Your task to perform on an android device: turn off priority inbox in the gmail app Image 0: 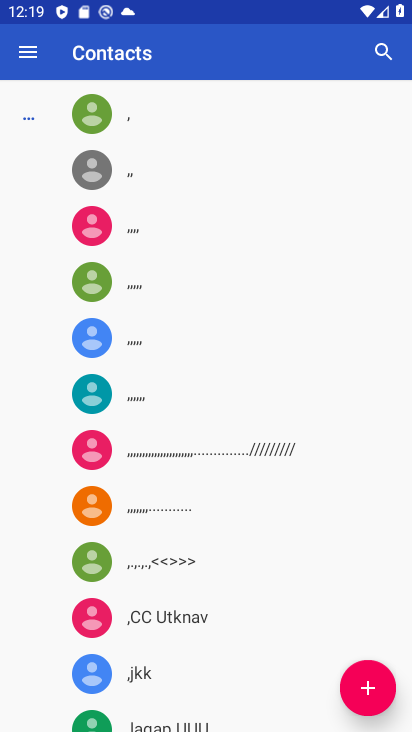
Step 0: press back button
Your task to perform on an android device: turn off priority inbox in the gmail app Image 1: 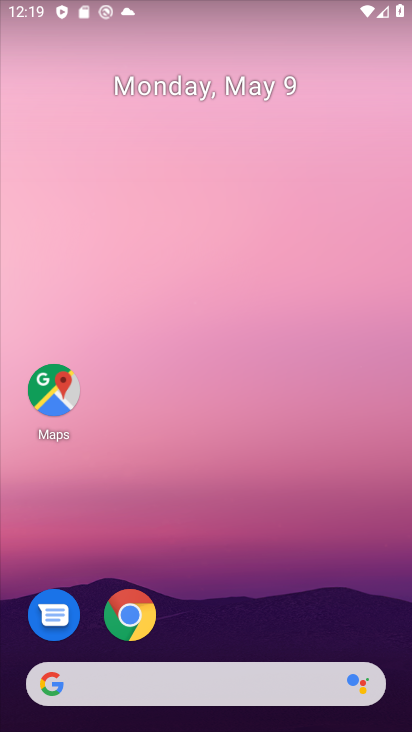
Step 1: drag from (276, 612) to (199, 162)
Your task to perform on an android device: turn off priority inbox in the gmail app Image 2: 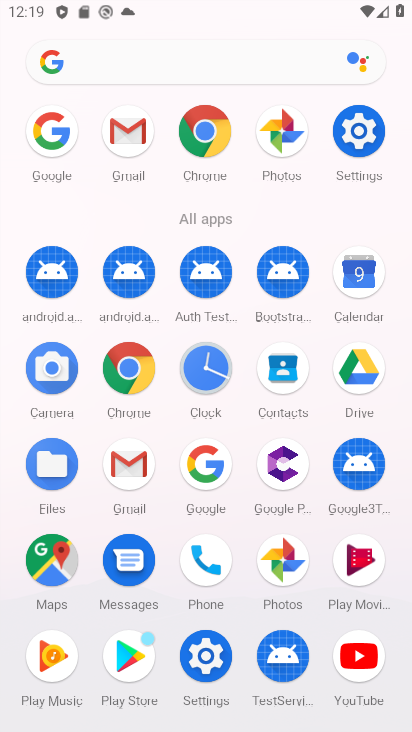
Step 2: click (128, 133)
Your task to perform on an android device: turn off priority inbox in the gmail app Image 3: 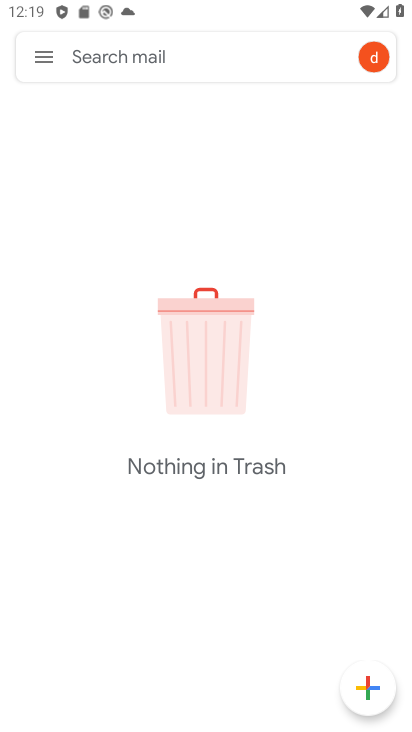
Step 3: click (47, 56)
Your task to perform on an android device: turn off priority inbox in the gmail app Image 4: 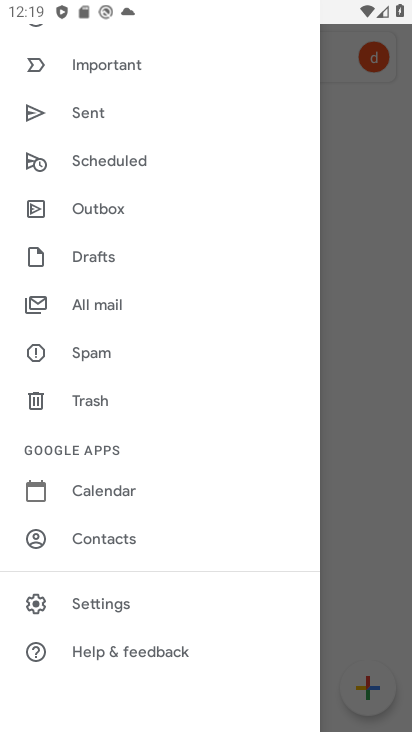
Step 4: click (116, 605)
Your task to perform on an android device: turn off priority inbox in the gmail app Image 5: 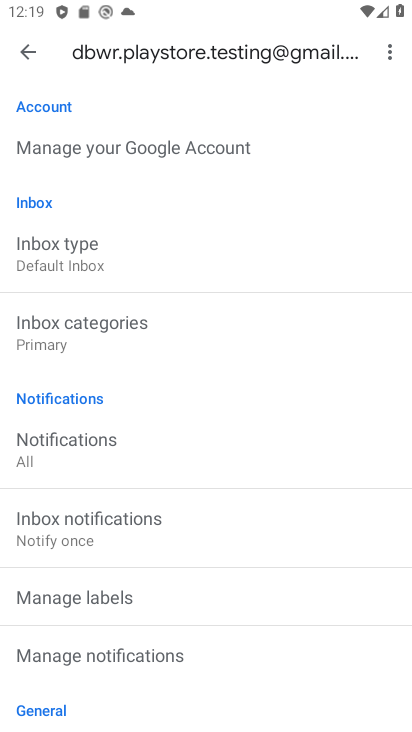
Step 5: click (64, 270)
Your task to perform on an android device: turn off priority inbox in the gmail app Image 6: 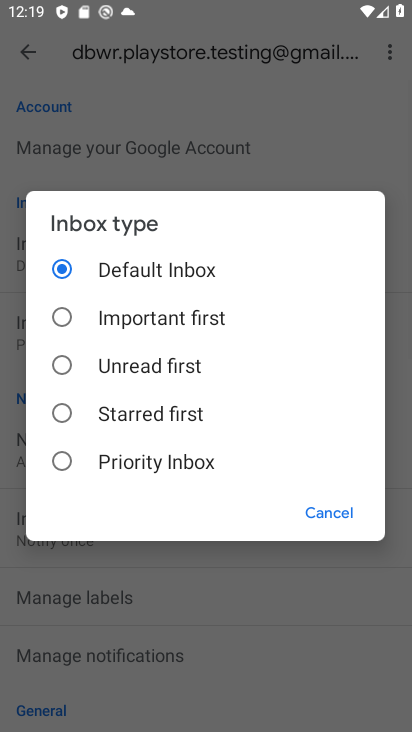
Step 6: click (64, 270)
Your task to perform on an android device: turn off priority inbox in the gmail app Image 7: 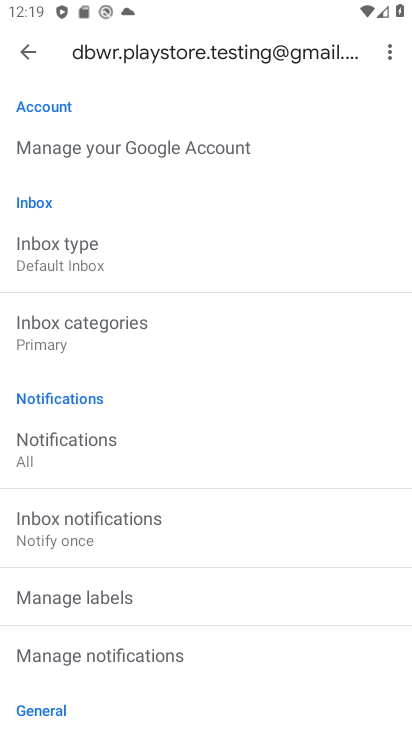
Step 7: click (64, 270)
Your task to perform on an android device: turn off priority inbox in the gmail app Image 8: 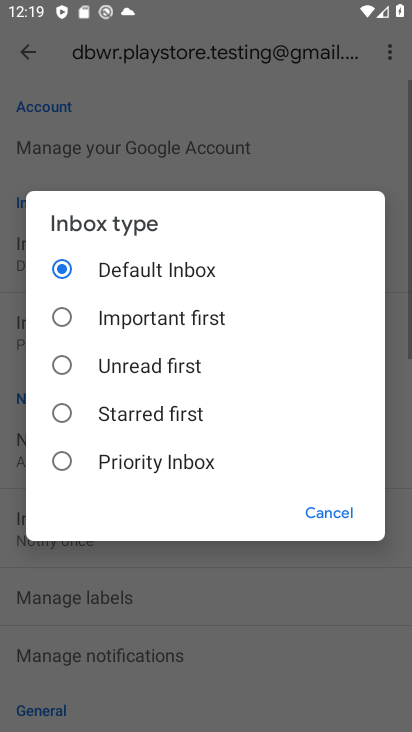
Step 8: click (64, 270)
Your task to perform on an android device: turn off priority inbox in the gmail app Image 9: 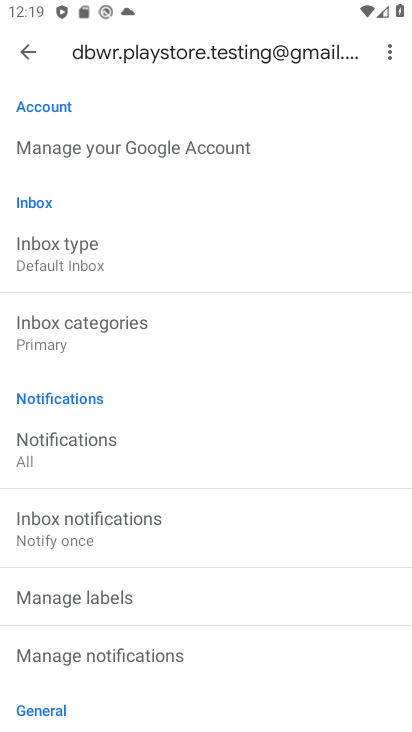
Step 9: task complete